Your task to perform on an android device: Search for the best rated 150-piece drill bit set on Aliexpress. Image 0: 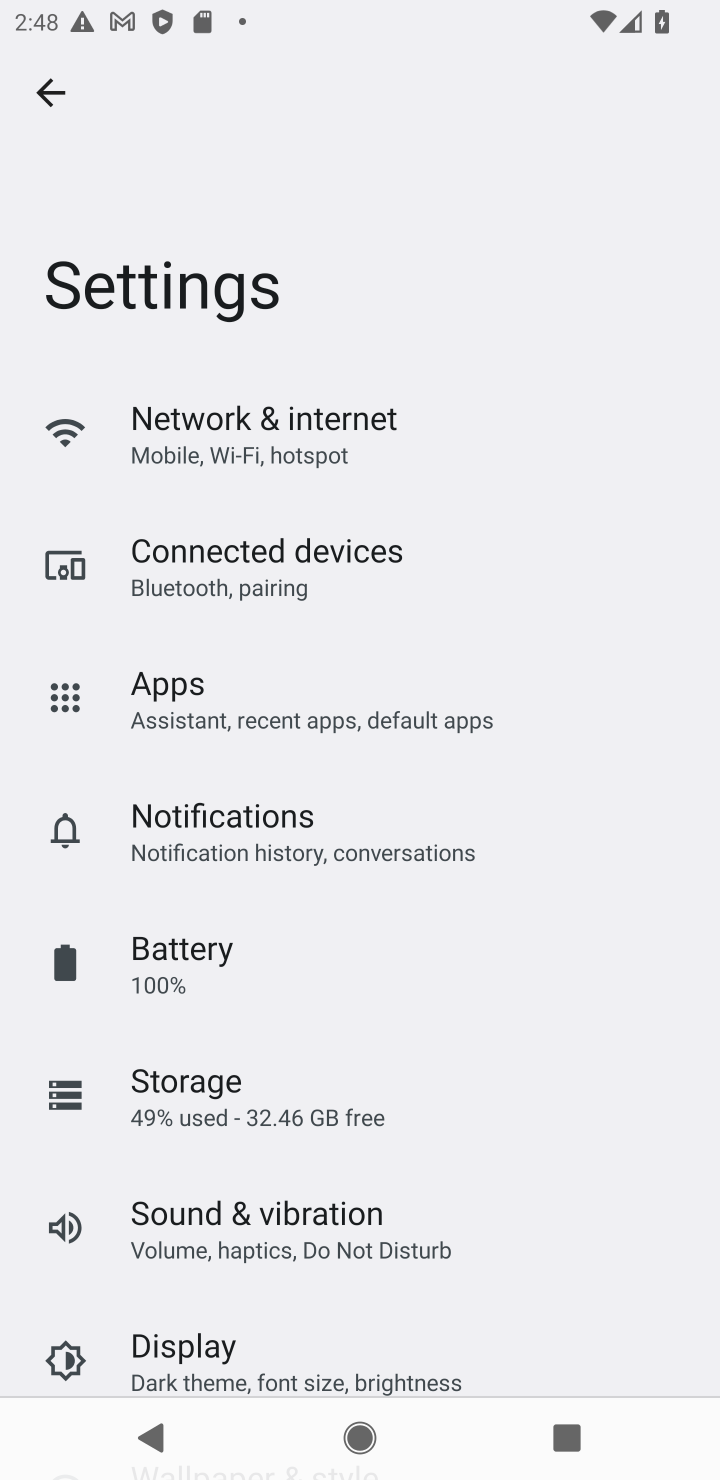
Step 0: press home button
Your task to perform on an android device: Search for the best rated 150-piece drill bit set on Aliexpress. Image 1: 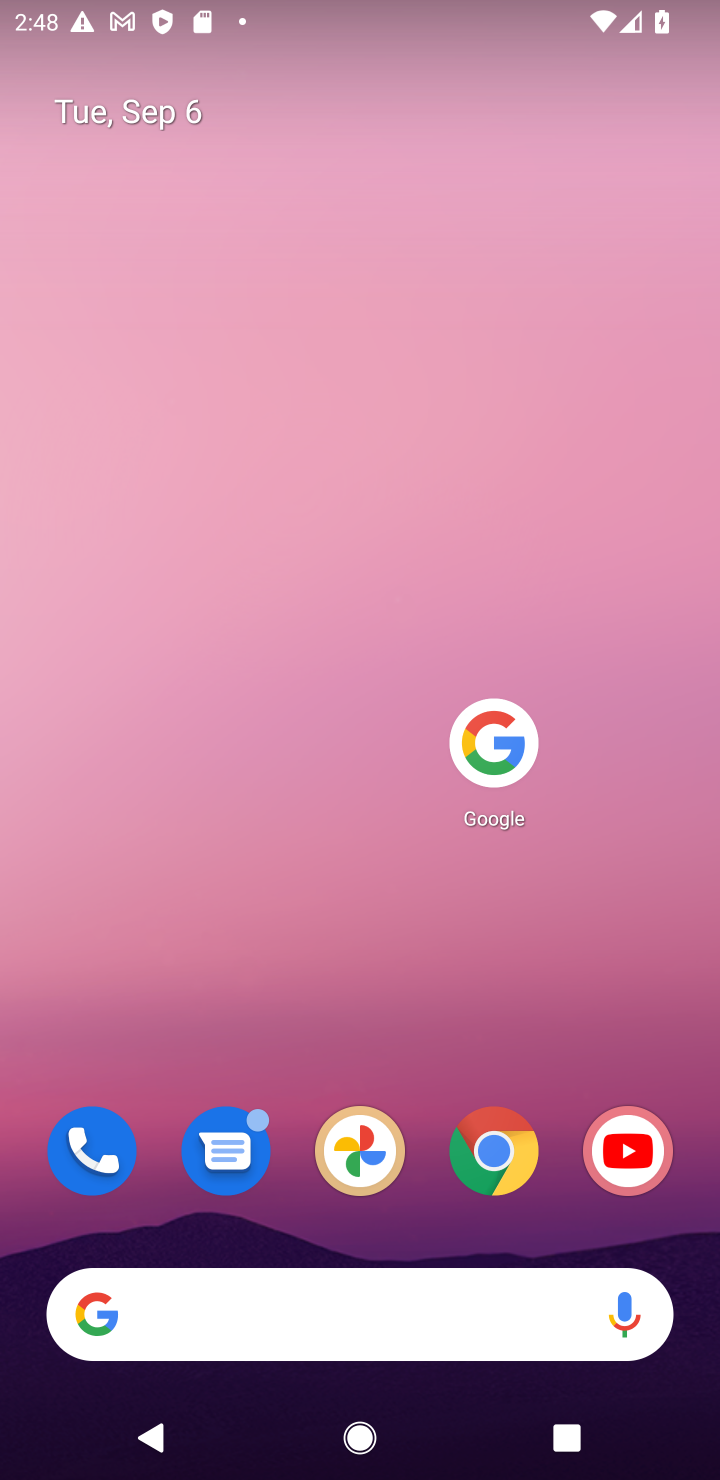
Step 1: click (489, 734)
Your task to perform on an android device: Search for the best rated 150-piece drill bit set on Aliexpress. Image 2: 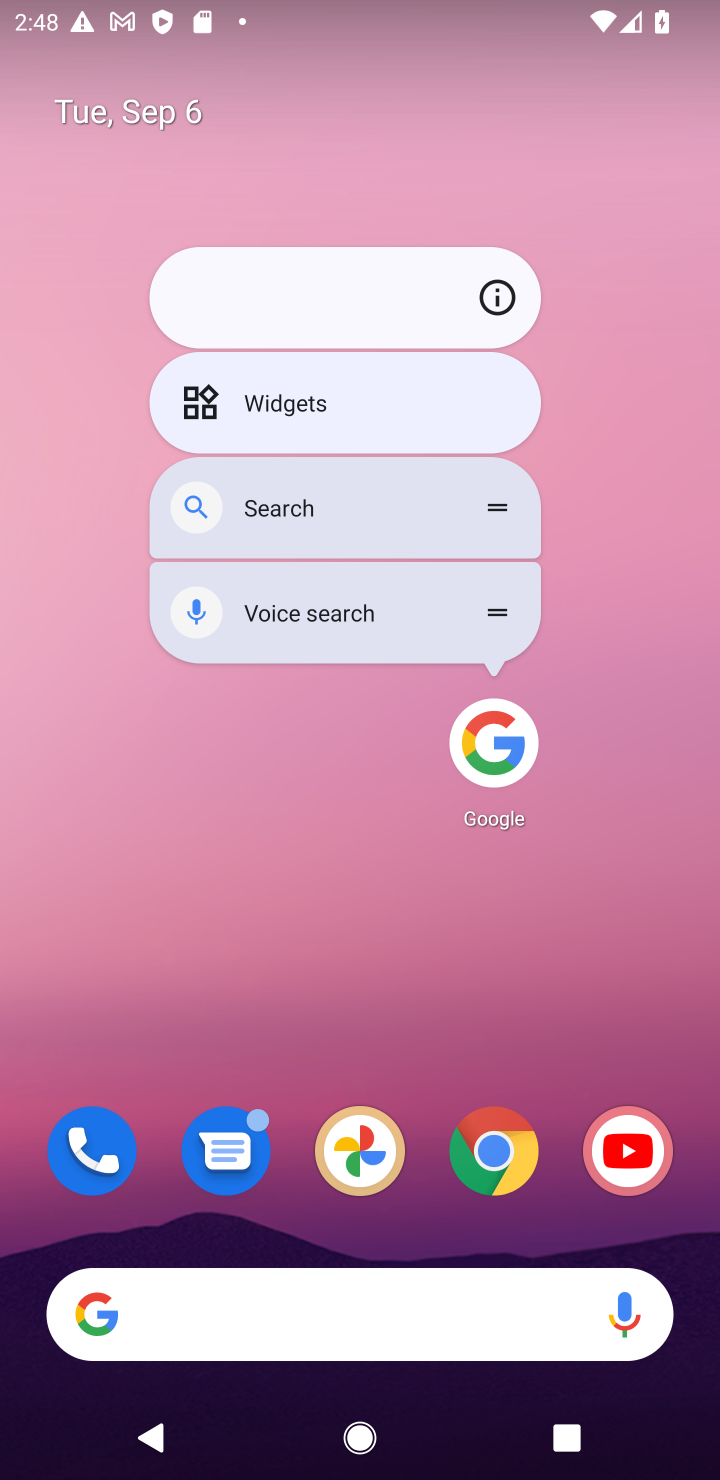
Step 2: click (482, 734)
Your task to perform on an android device: Search for the best rated 150-piece drill bit set on Aliexpress. Image 3: 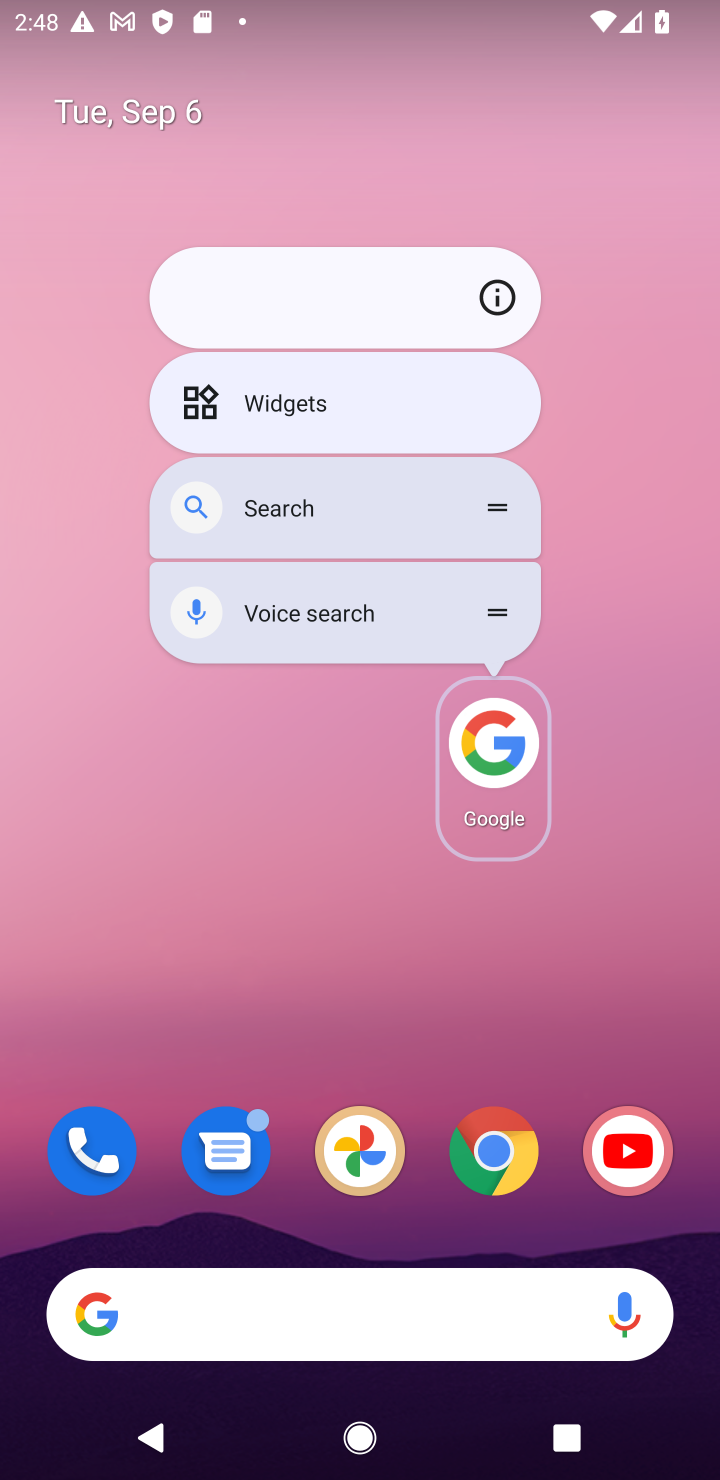
Step 3: click (493, 733)
Your task to perform on an android device: Search for the best rated 150-piece drill bit set on Aliexpress. Image 4: 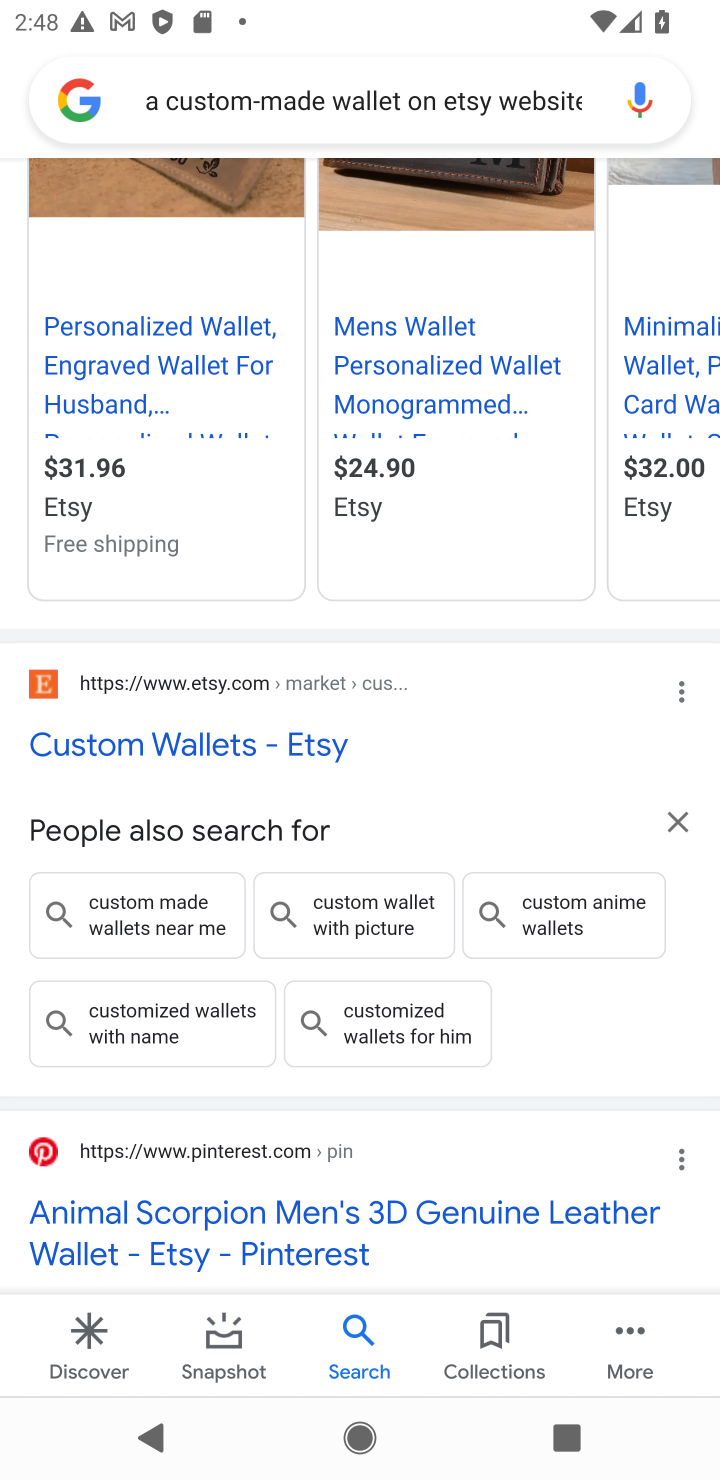
Step 4: click (426, 97)
Your task to perform on an android device: Search for the best rated 150-piece drill bit set on Aliexpress. Image 5: 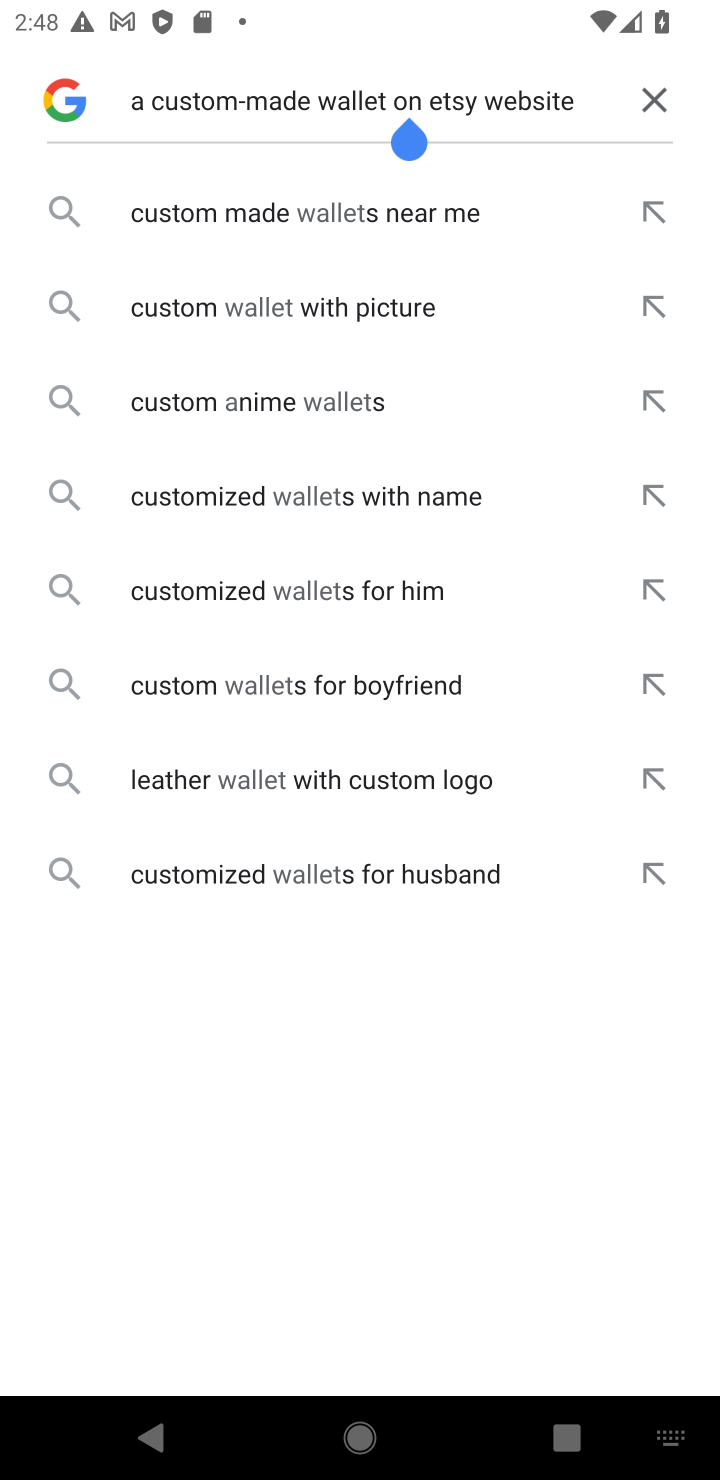
Step 5: click (644, 95)
Your task to perform on an android device: Search for the best rated 150-piece drill bit set on Aliexpress. Image 6: 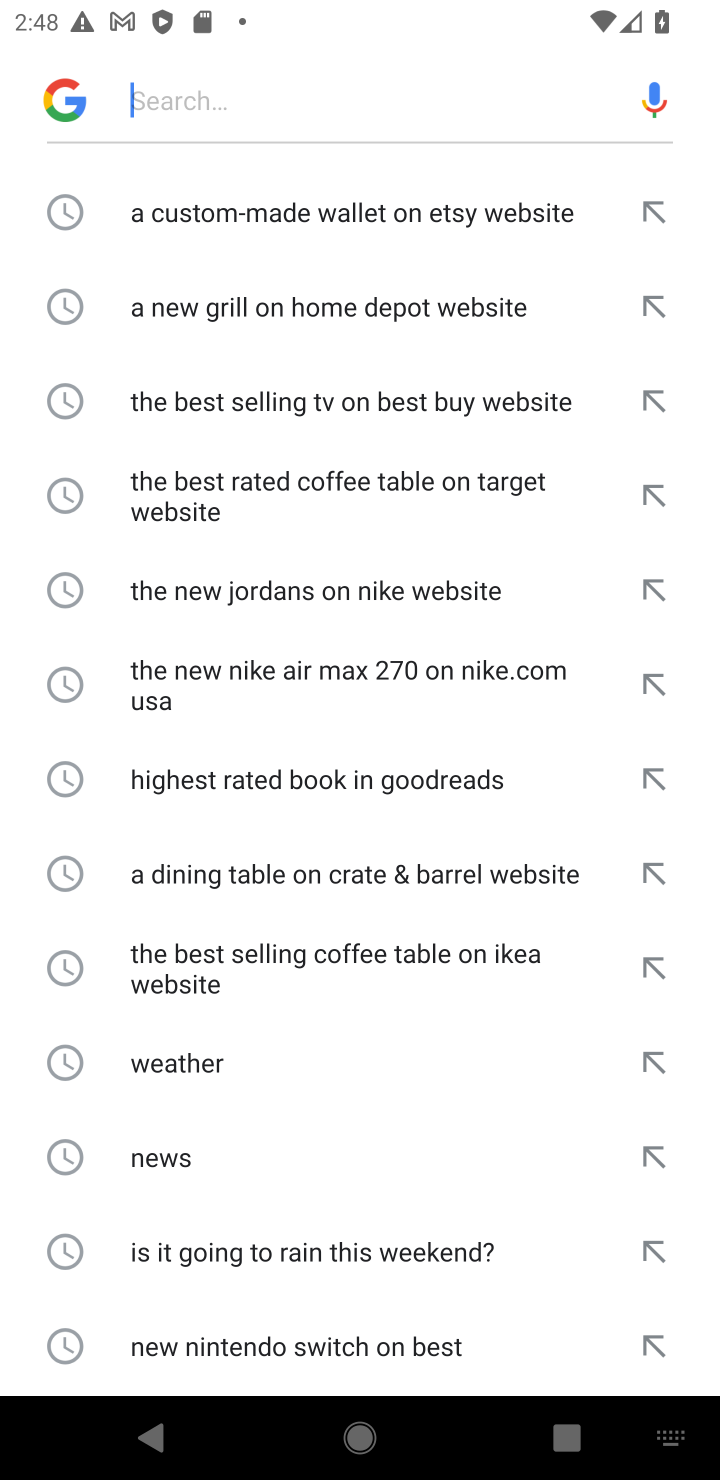
Step 6: click (350, 99)
Your task to perform on an android device: Search for the best rated 150-piece drill bit set on Aliexpress. Image 7: 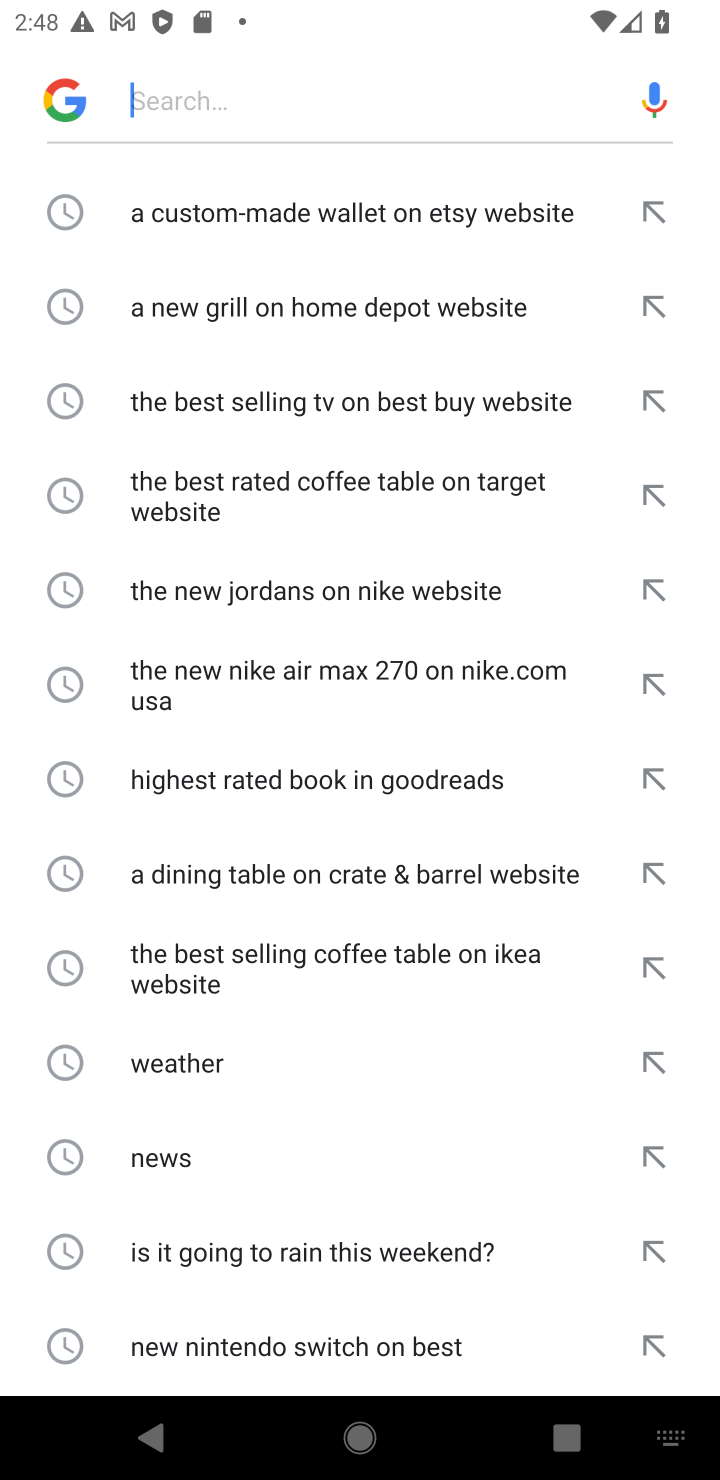
Step 7: type " best rated 150-piece drill bit set on Aliexpress "
Your task to perform on an android device: Search for the best rated 150-piece drill bit set on Aliexpress. Image 8: 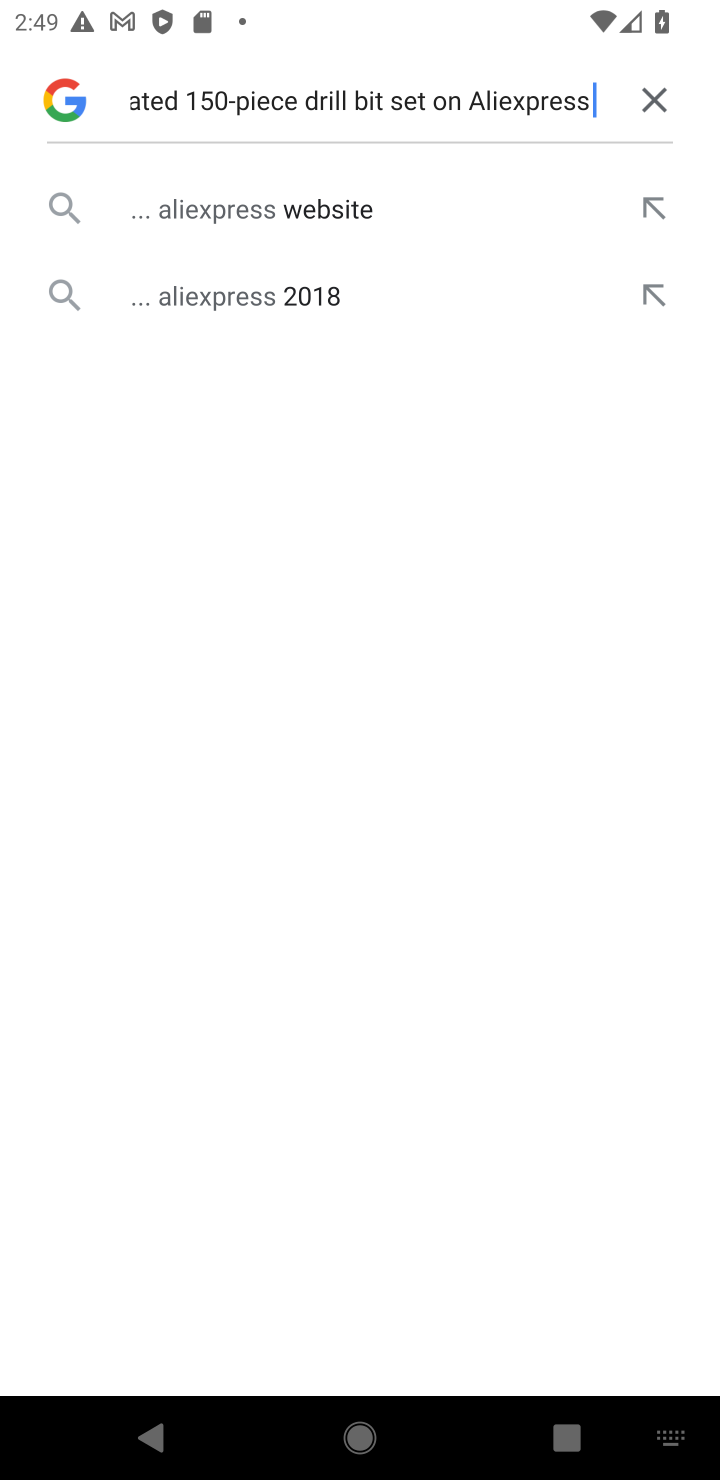
Step 8: click (306, 198)
Your task to perform on an android device: Search for the best rated 150-piece drill bit set on Aliexpress. Image 9: 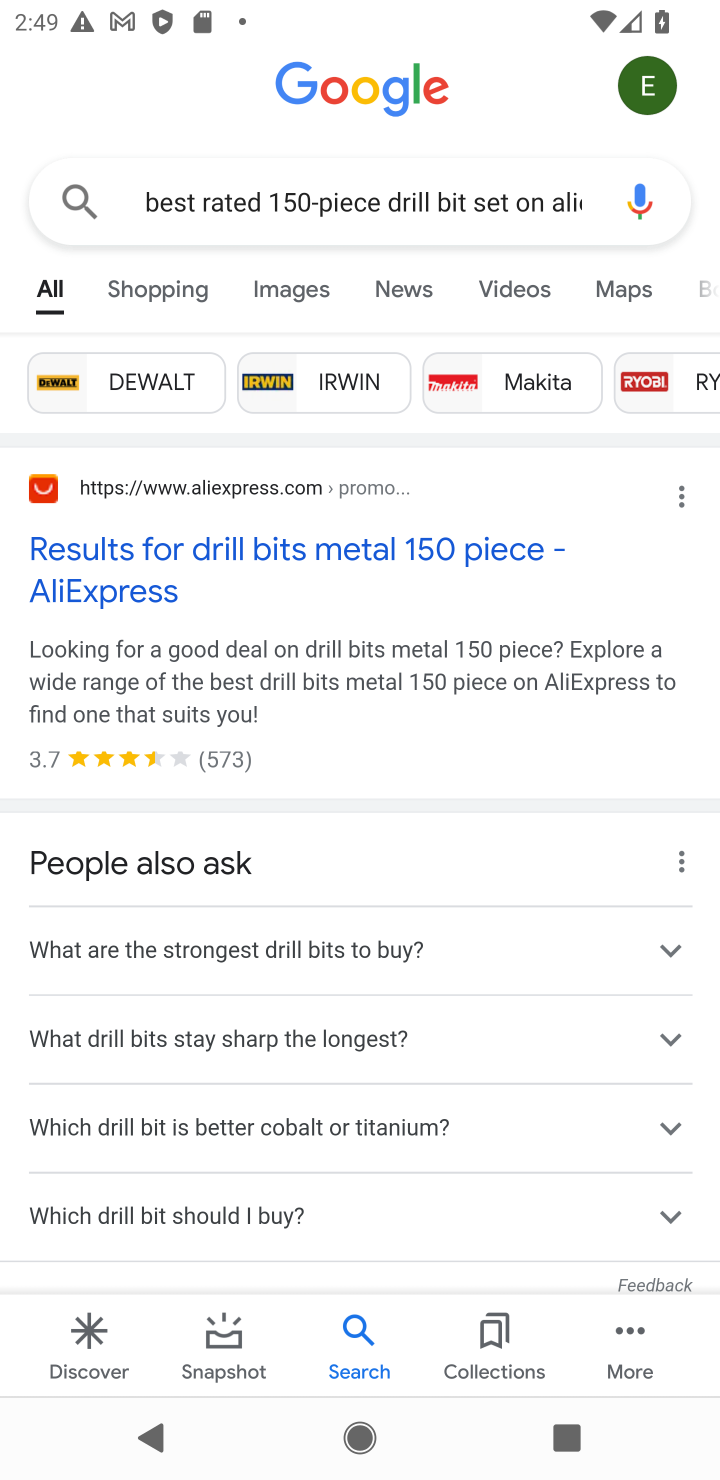
Step 9: drag from (419, 1029) to (432, 287)
Your task to perform on an android device: Search for the best rated 150-piece drill bit set on Aliexpress. Image 10: 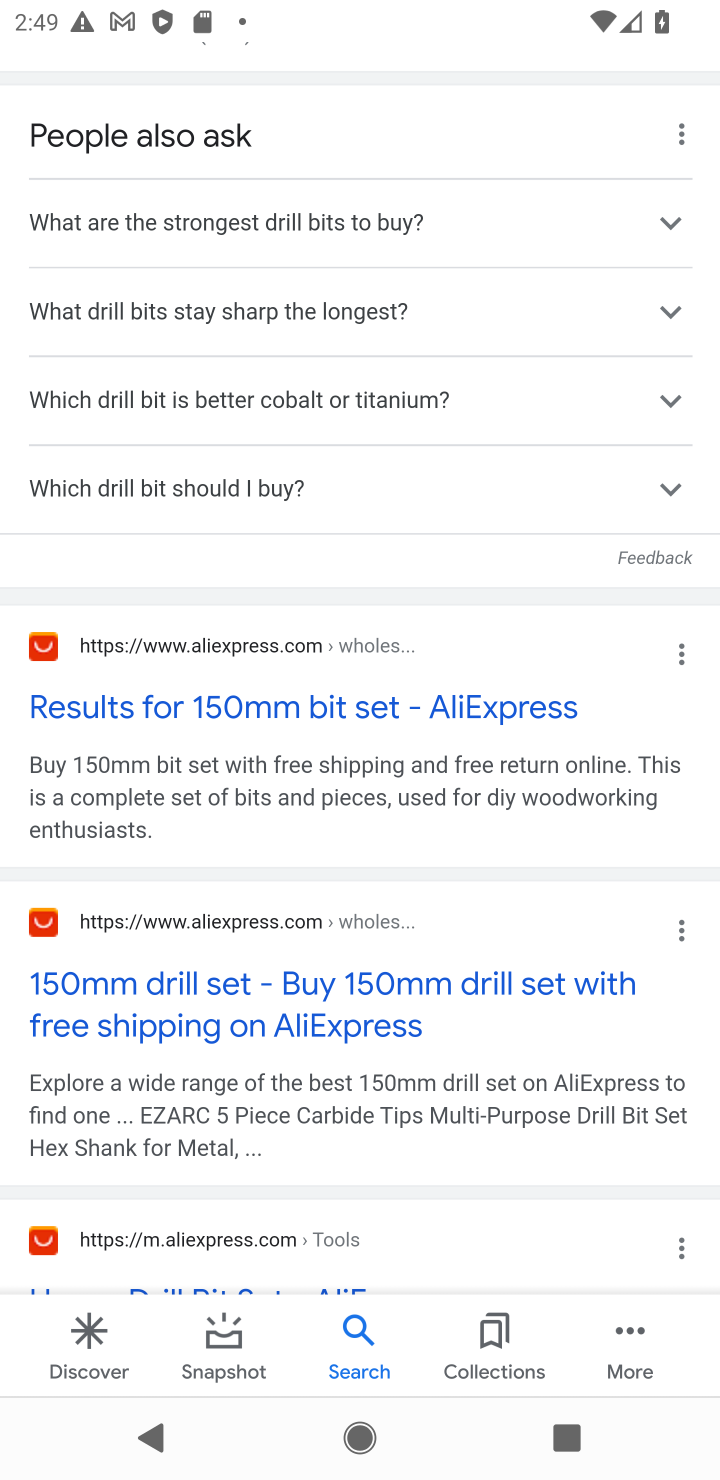
Step 10: click (461, 695)
Your task to perform on an android device: Search for the best rated 150-piece drill bit set on Aliexpress. Image 11: 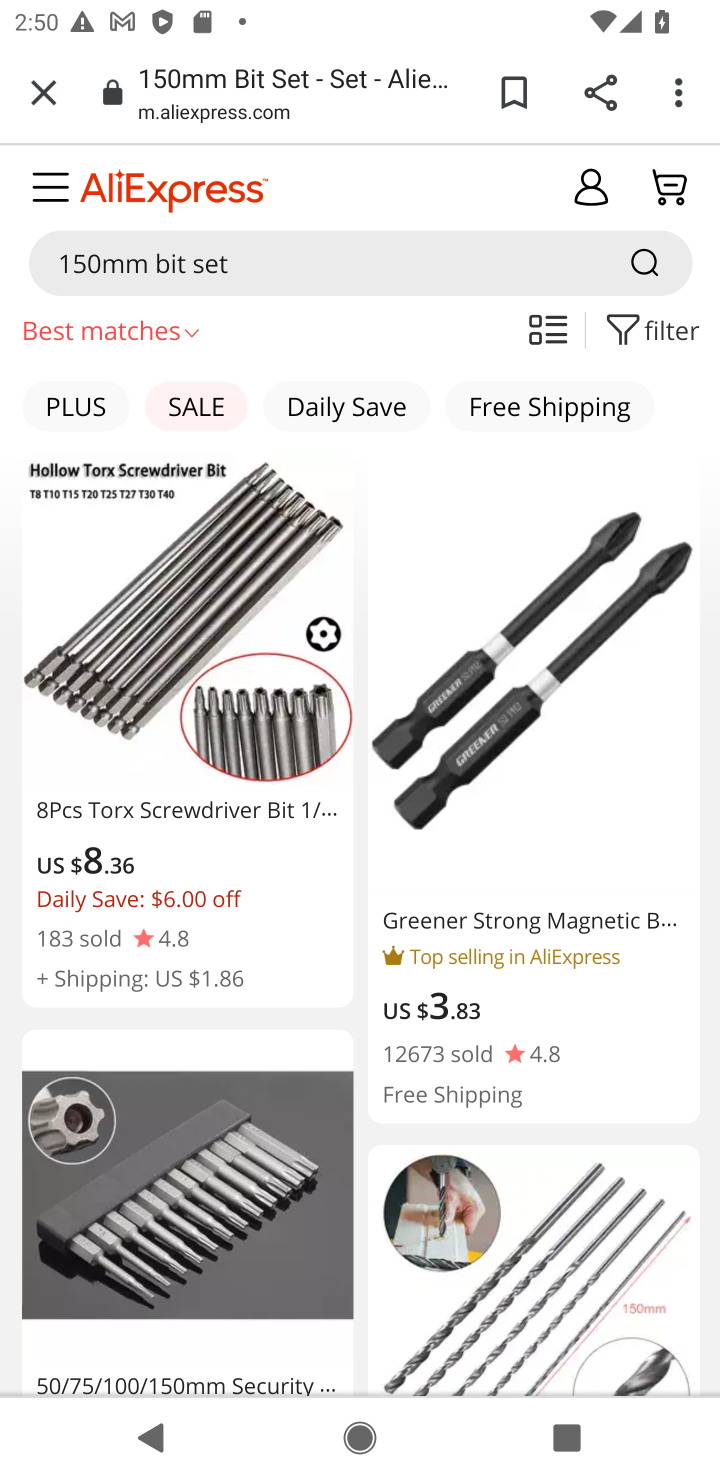
Step 11: task complete